Your task to perform on an android device: stop showing notifications on the lock screen Image 0: 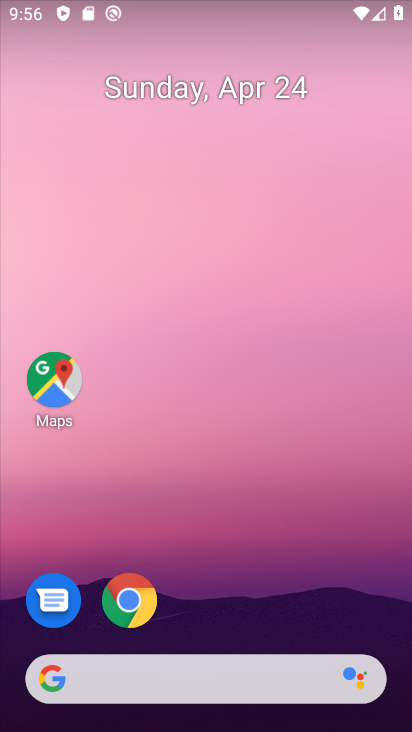
Step 0: drag from (233, 562) to (332, 18)
Your task to perform on an android device: stop showing notifications on the lock screen Image 1: 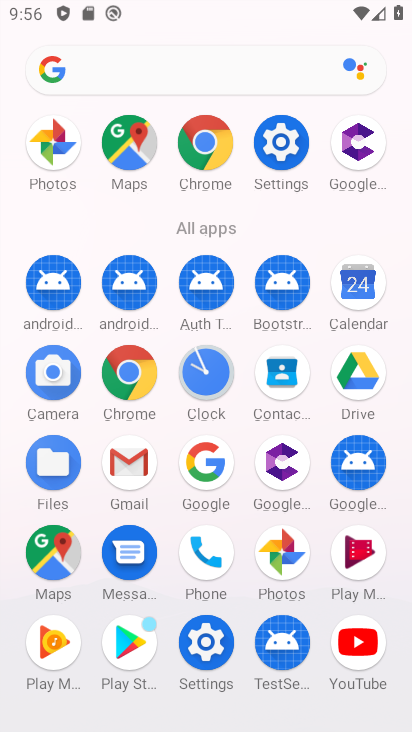
Step 1: click (282, 139)
Your task to perform on an android device: stop showing notifications on the lock screen Image 2: 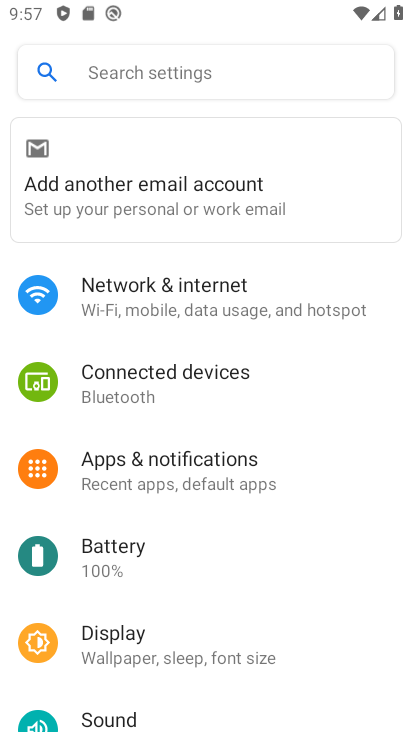
Step 2: click (173, 456)
Your task to perform on an android device: stop showing notifications on the lock screen Image 3: 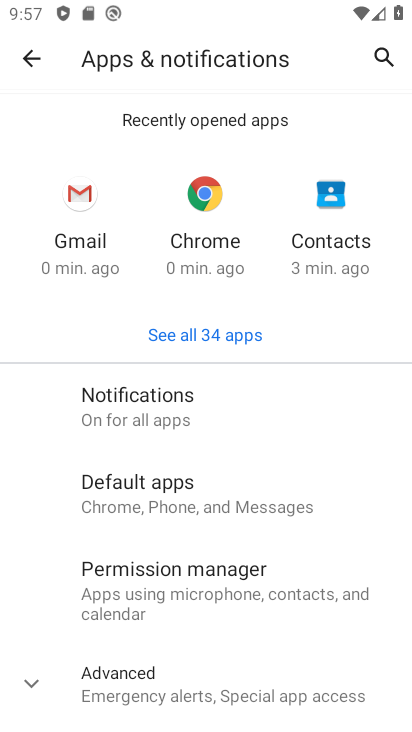
Step 3: click (151, 387)
Your task to perform on an android device: stop showing notifications on the lock screen Image 4: 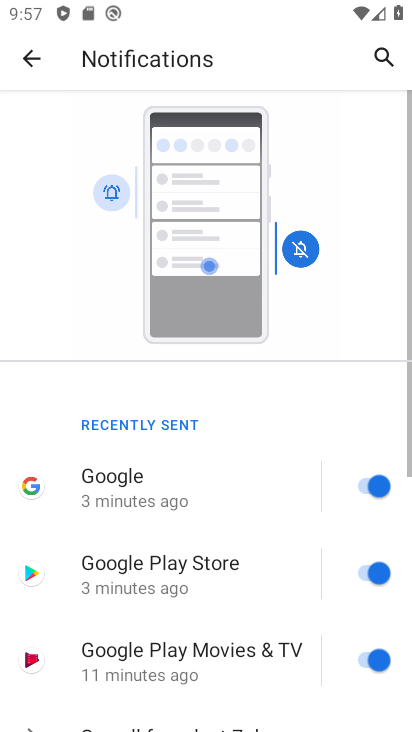
Step 4: click (274, 482)
Your task to perform on an android device: stop showing notifications on the lock screen Image 5: 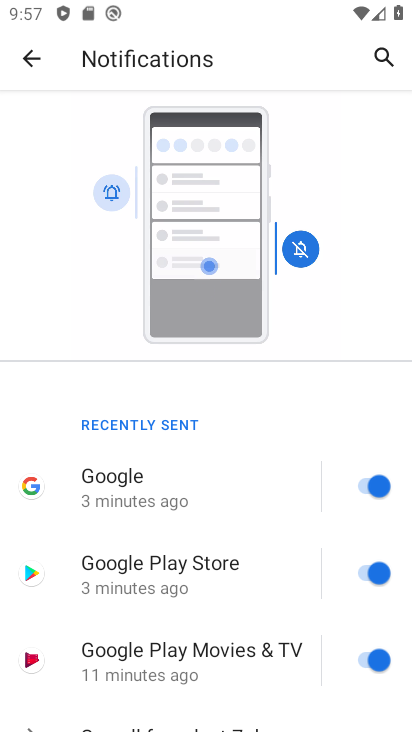
Step 5: drag from (249, 564) to (273, 120)
Your task to perform on an android device: stop showing notifications on the lock screen Image 6: 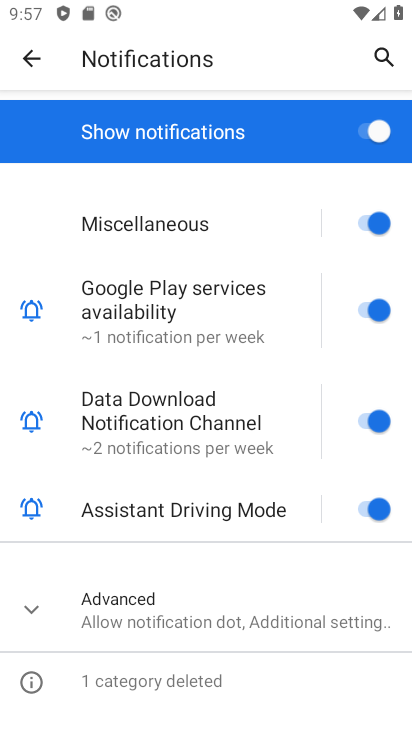
Step 6: click (105, 616)
Your task to perform on an android device: stop showing notifications on the lock screen Image 7: 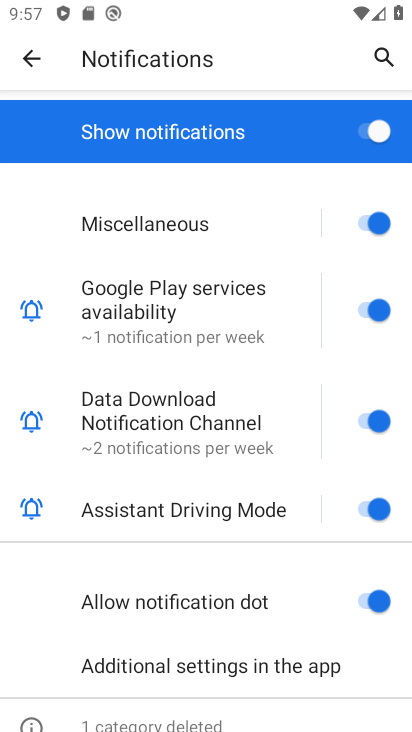
Step 7: drag from (128, 615) to (78, 235)
Your task to perform on an android device: stop showing notifications on the lock screen Image 8: 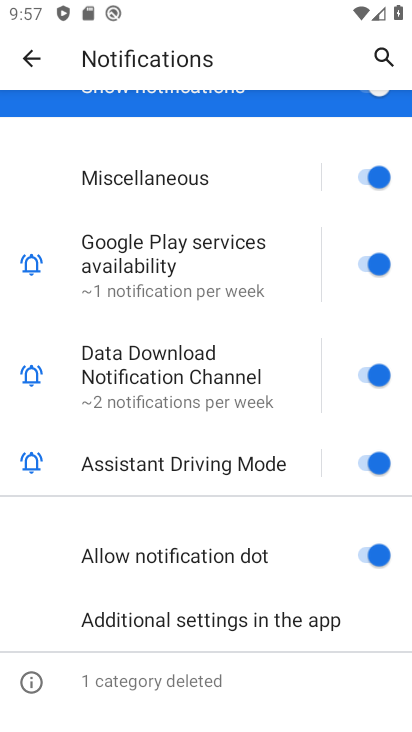
Step 8: click (31, 61)
Your task to perform on an android device: stop showing notifications on the lock screen Image 9: 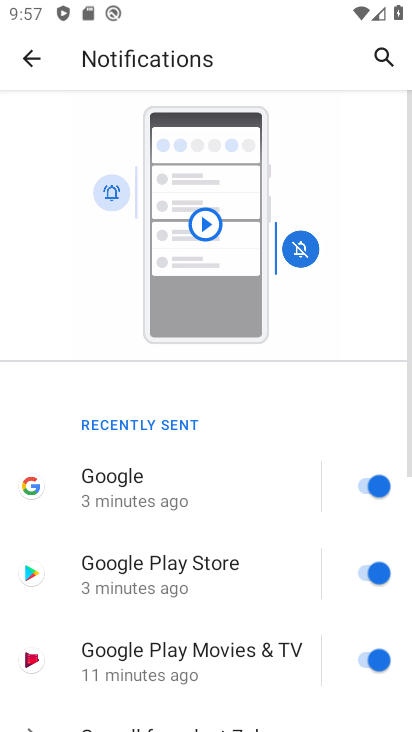
Step 9: drag from (175, 547) to (161, 166)
Your task to perform on an android device: stop showing notifications on the lock screen Image 10: 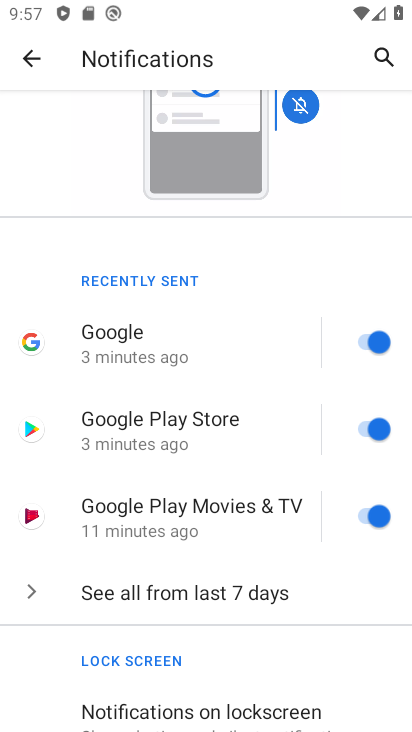
Step 10: click (178, 712)
Your task to perform on an android device: stop showing notifications on the lock screen Image 11: 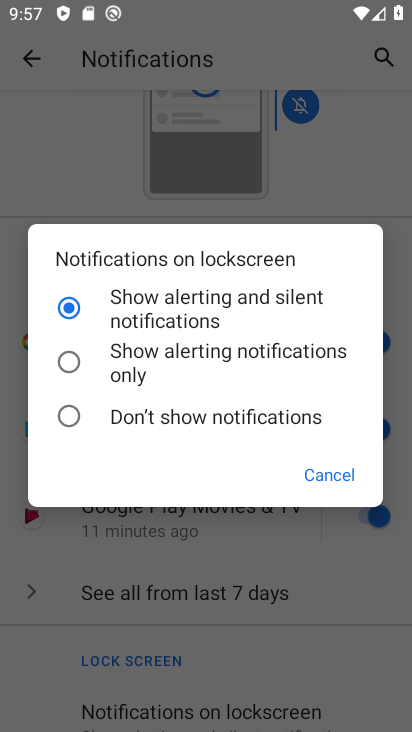
Step 11: click (65, 417)
Your task to perform on an android device: stop showing notifications on the lock screen Image 12: 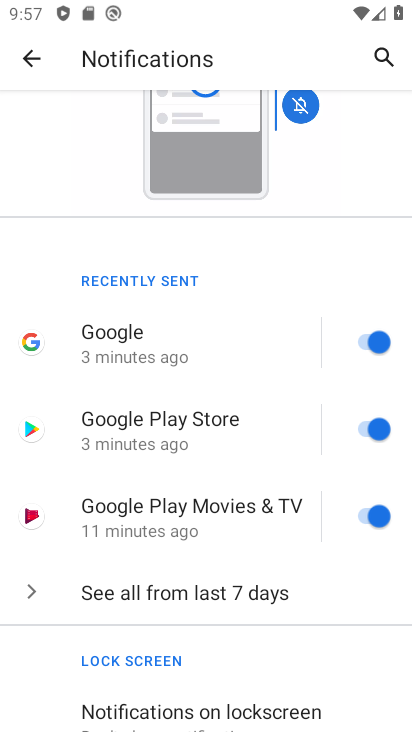
Step 12: task complete